Your task to perform on an android device: toggle notifications settings in the gmail app Image 0: 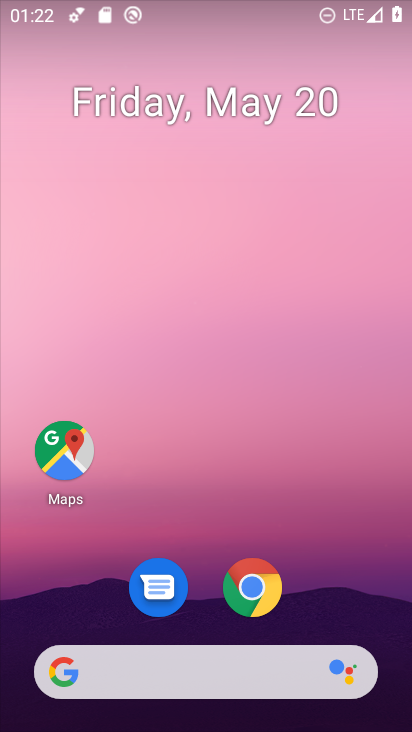
Step 0: drag from (370, 616) to (381, 241)
Your task to perform on an android device: toggle notifications settings in the gmail app Image 1: 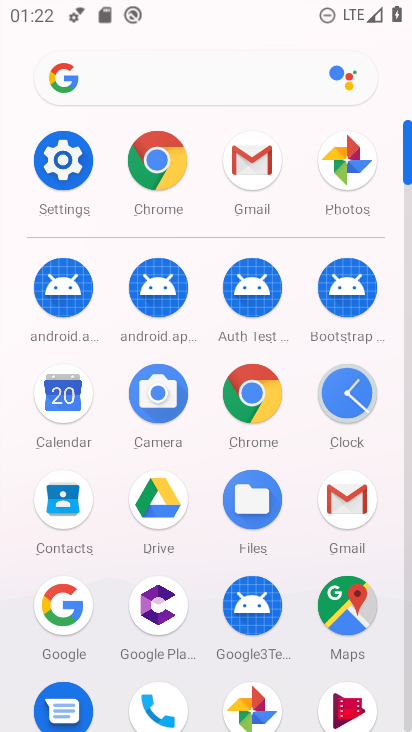
Step 1: click (346, 510)
Your task to perform on an android device: toggle notifications settings in the gmail app Image 2: 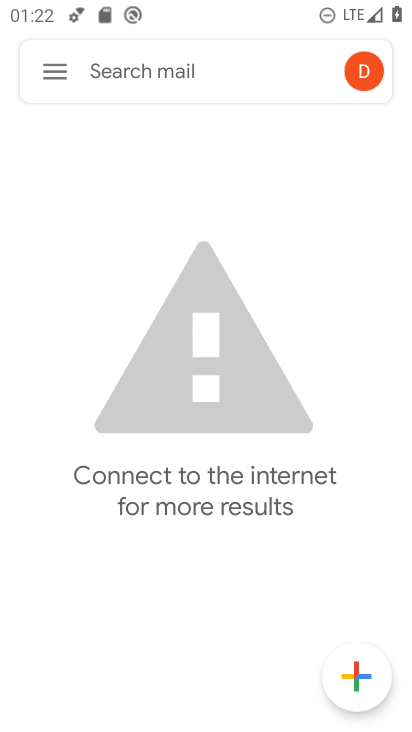
Step 2: click (67, 83)
Your task to perform on an android device: toggle notifications settings in the gmail app Image 3: 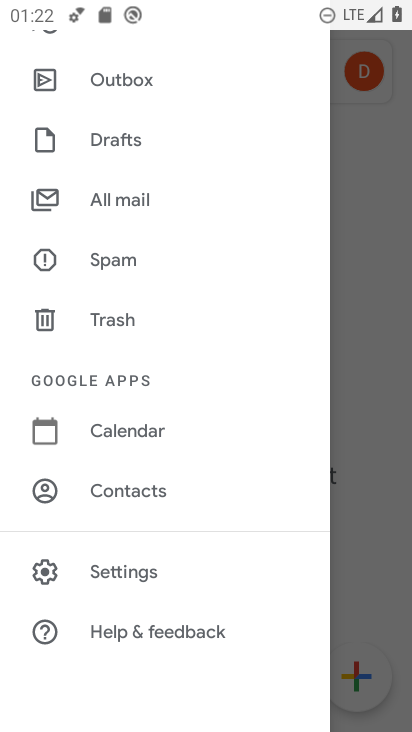
Step 3: drag from (241, 187) to (243, 252)
Your task to perform on an android device: toggle notifications settings in the gmail app Image 4: 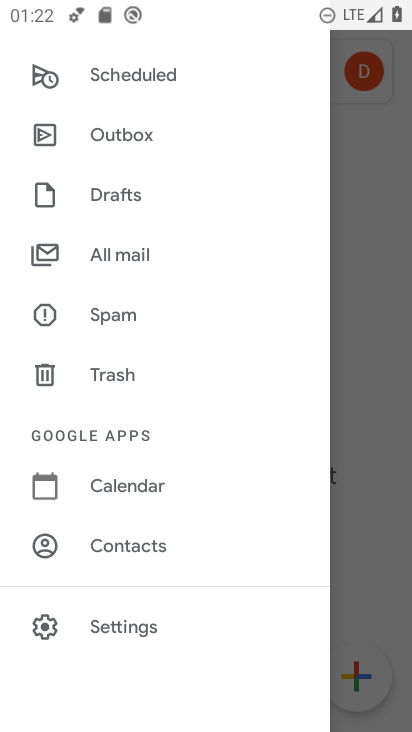
Step 4: drag from (237, 202) to (231, 264)
Your task to perform on an android device: toggle notifications settings in the gmail app Image 5: 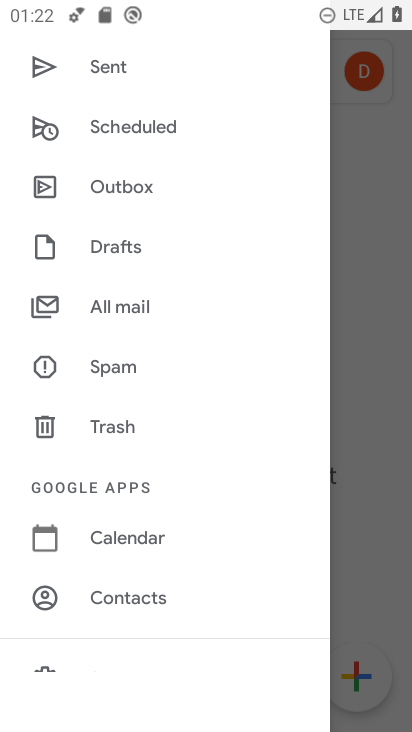
Step 5: drag from (244, 203) to (236, 270)
Your task to perform on an android device: toggle notifications settings in the gmail app Image 6: 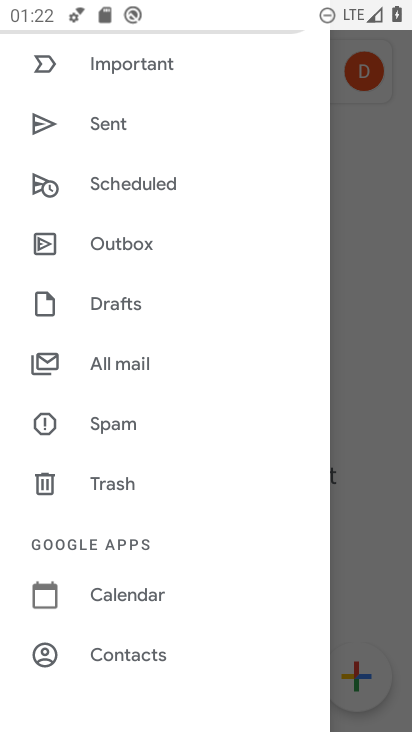
Step 6: drag from (245, 199) to (243, 265)
Your task to perform on an android device: toggle notifications settings in the gmail app Image 7: 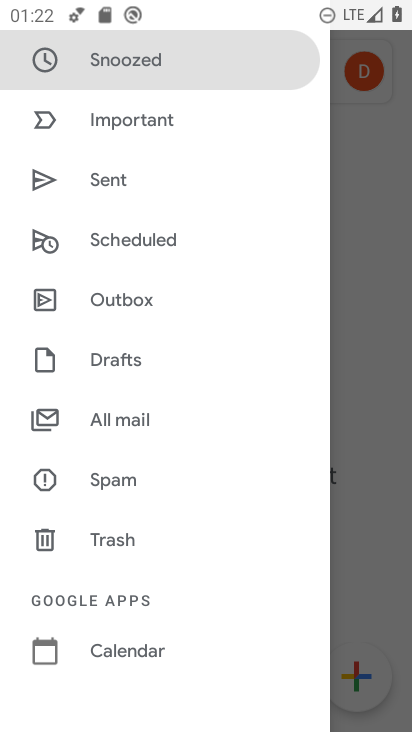
Step 7: drag from (252, 220) to (251, 286)
Your task to perform on an android device: toggle notifications settings in the gmail app Image 8: 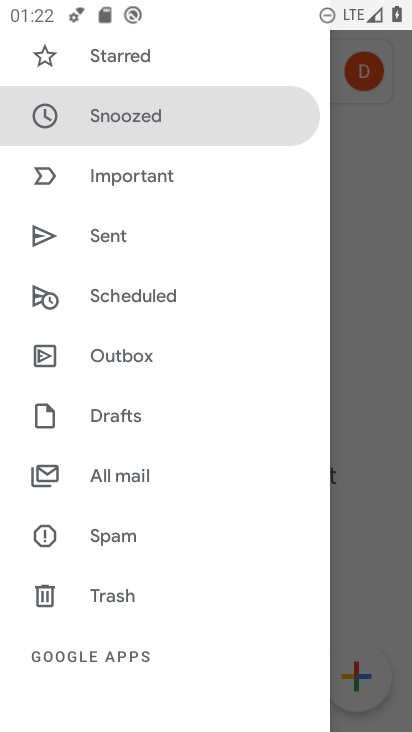
Step 8: drag from (260, 183) to (247, 270)
Your task to perform on an android device: toggle notifications settings in the gmail app Image 9: 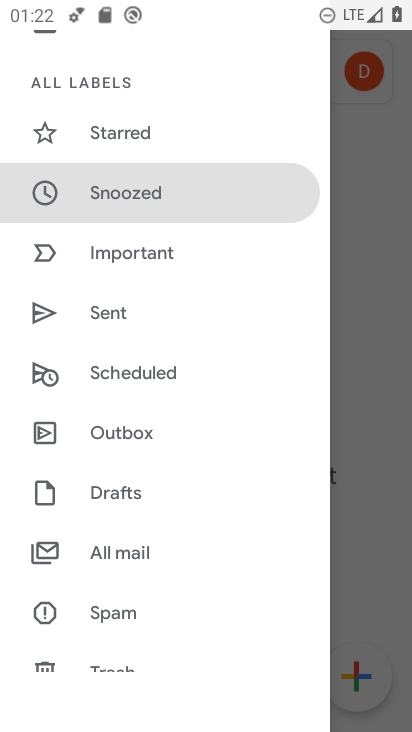
Step 9: drag from (253, 164) to (247, 298)
Your task to perform on an android device: toggle notifications settings in the gmail app Image 10: 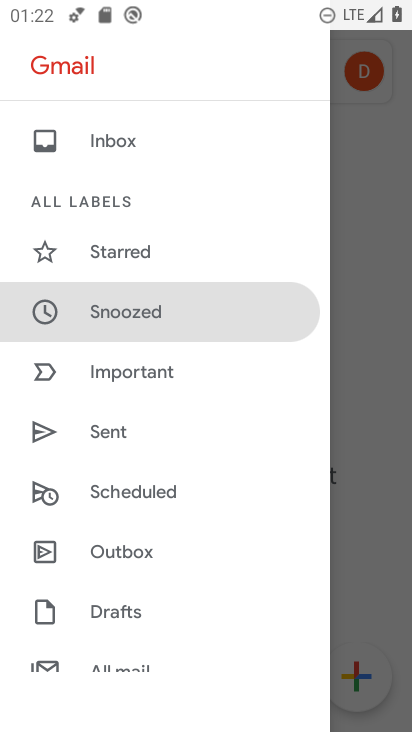
Step 10: drag from (248, 284) to (264, 175)
Your task to perform on an android device: toggle notifications settings in the gmail app Image 11: 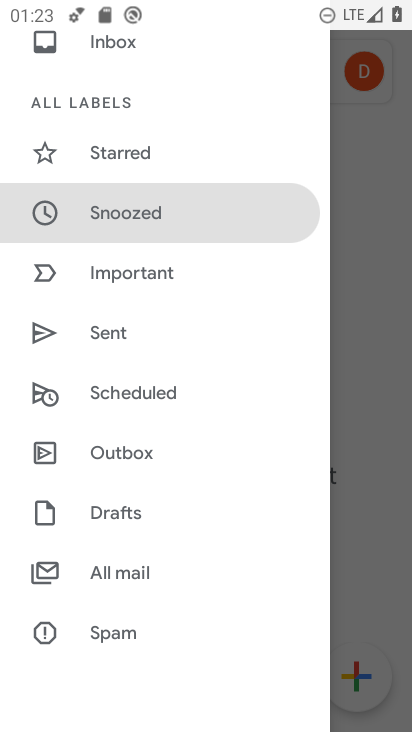
Step 11: drag from (234, 346) to (248, 292)
Your task to perform on an android device: toggle notifications settings in the gmail app Image 12: 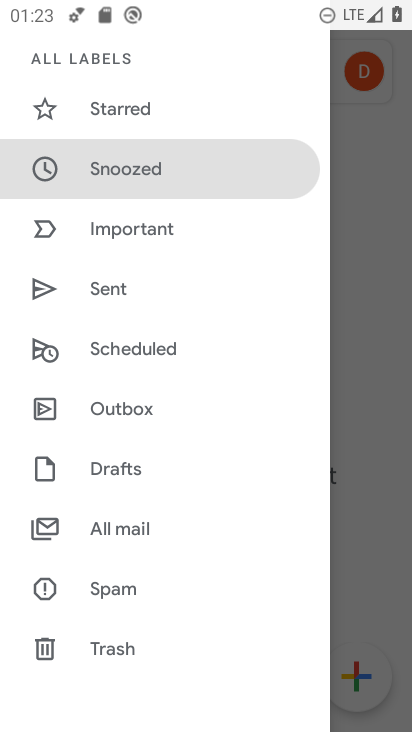
Step 12: drag from (235, 386) to (267, 283)
Your task to perform on an android device: toggle notifications settings in the gmail app Image 13: 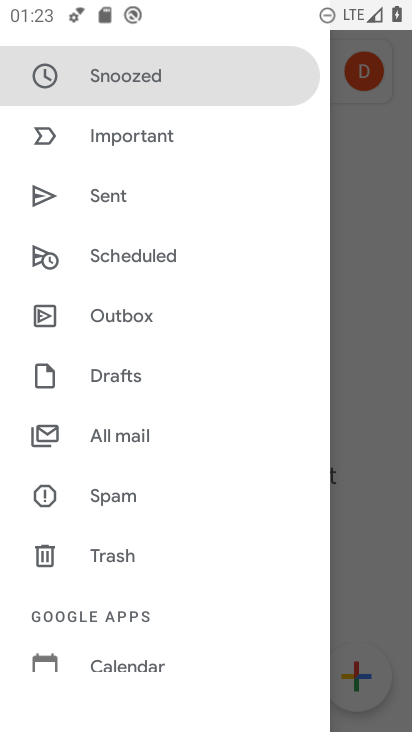
Step 13: drag from (260, 408) to (275, 329)
Your task to perform on an android device: toggle notifications settings in the gmail app Image 14: 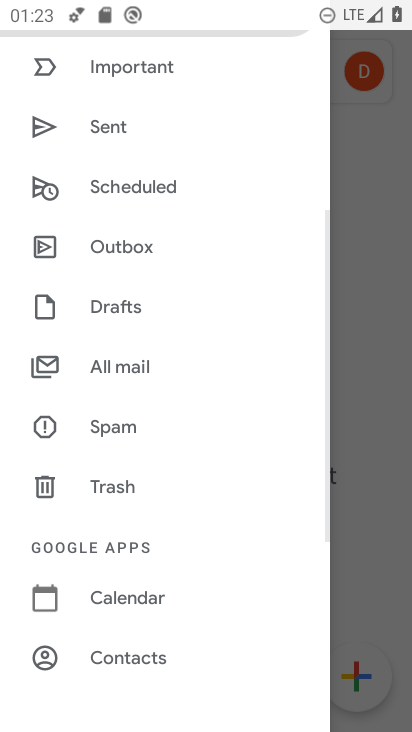
Step 14: drag from (256, 416) to (270, 348)
Your task to perform on an android device: toggle notifications settings in the gmail app Image 15: 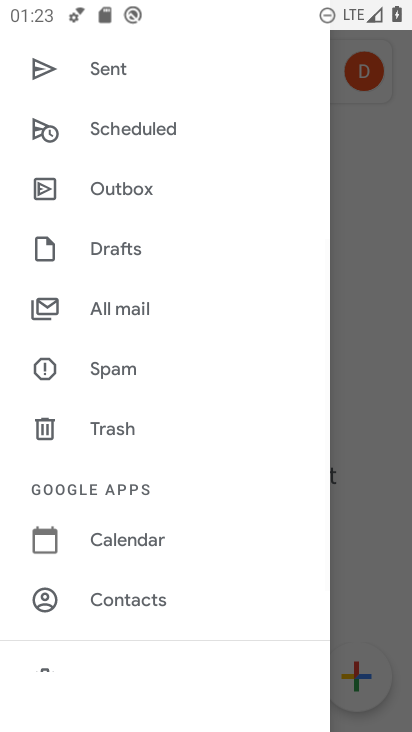
Step 15: drag from (257, 430) to (269, 358)
Your task to perform on an android device: toggle notifications settings in the gmail app Image 16: 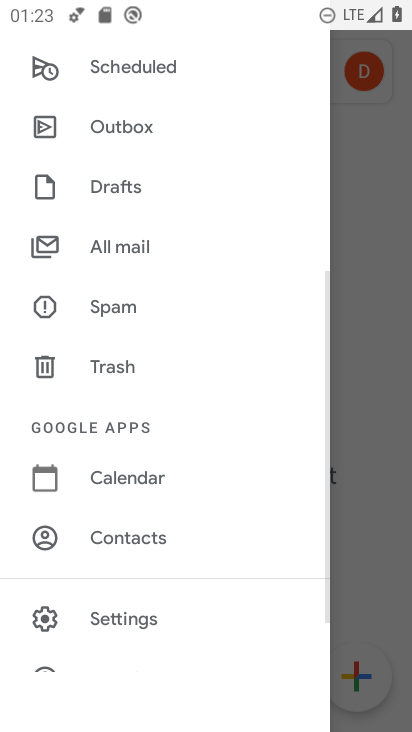
Step 16: drag from (257, 415) to (266, 365)
Your task to perform on an android device: toggle notifications settings in the gmail app Image 17: 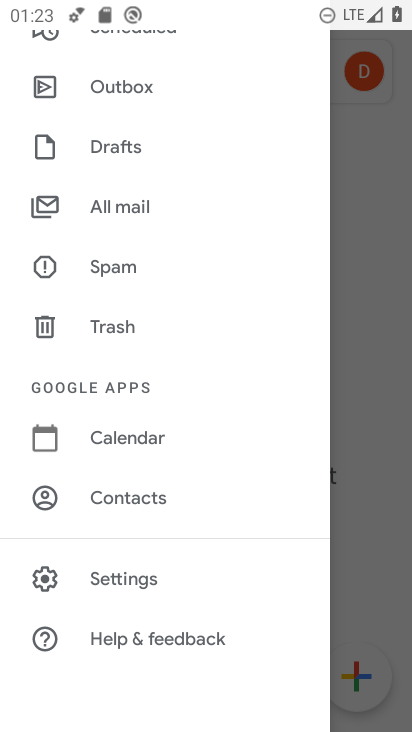
Step 17: drag from (258, 410) to (267, 368)
Your task to perform on an android device: toggle notifications settings in the gmail app Image 18: 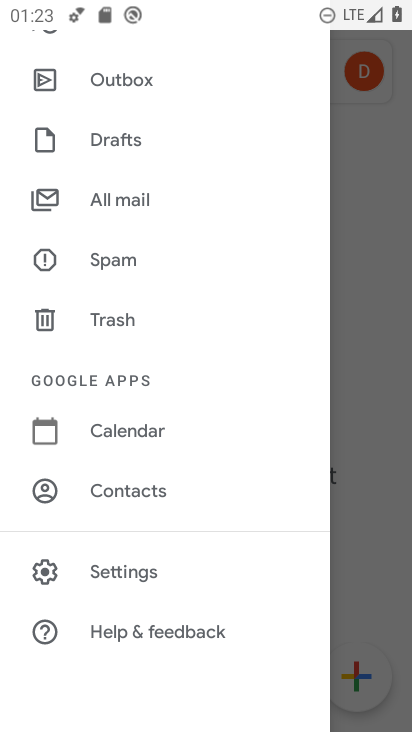
Step 18: drag from (251, 431) to (263, 388)
Your task to perform on an android device: toggle notifications settings in the gmail app Image 19: 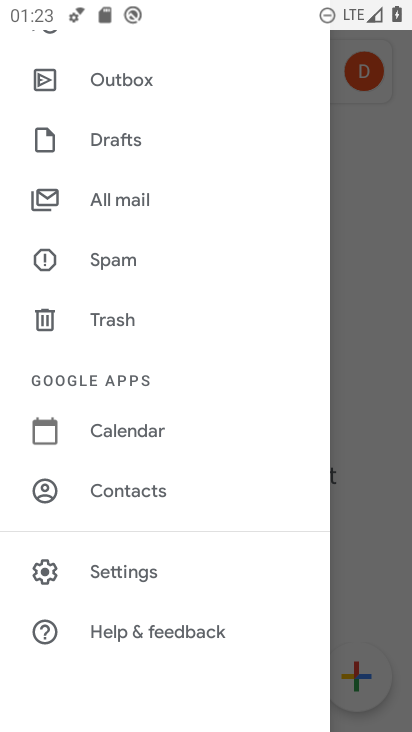
Step 19: drag from (251, 418) to (258, 374)
Your task to perform on an android device: toggle notifications settings in the gmail app Image 20: 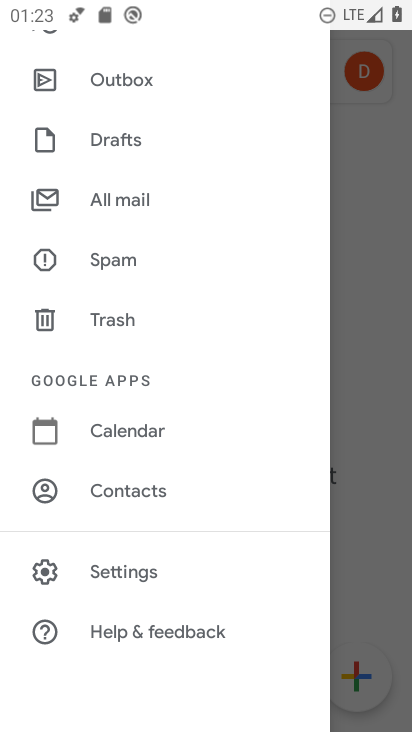
Step 20: click (142, 575)
Your task to perform on an android device: toggle notifications settings in the gmail app Image 21: 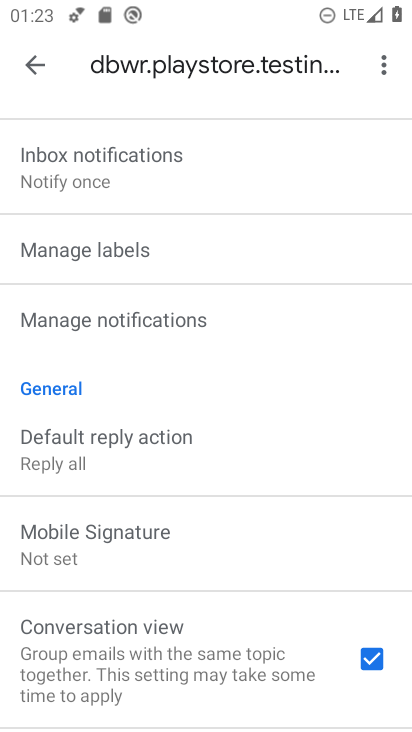
Step 21: click (237, 332)
Your task to perform on an android device: toggle notifications settings in the gmail app Image 22: 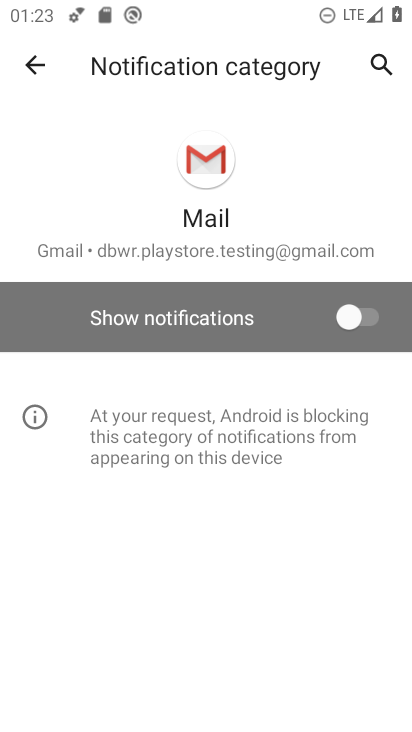
Step 22: click (354, 318)
Your task to perform on an android device: toggle notifications settings in the gmail app Image 23: 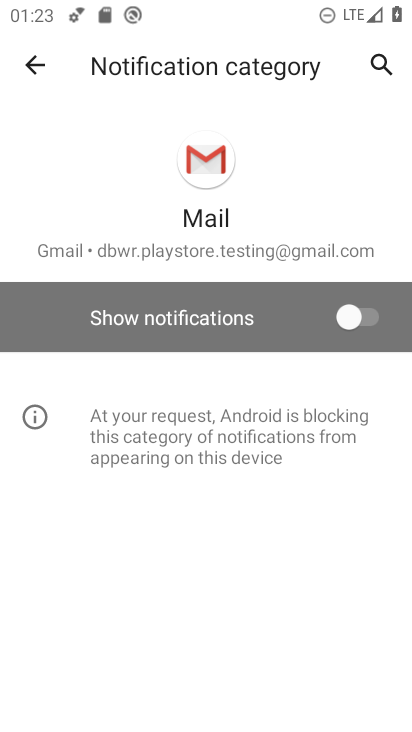
Step 23: click (334, 317)
Your task to perform on an android device: toggle notifications settings in the gmail app Image 24: 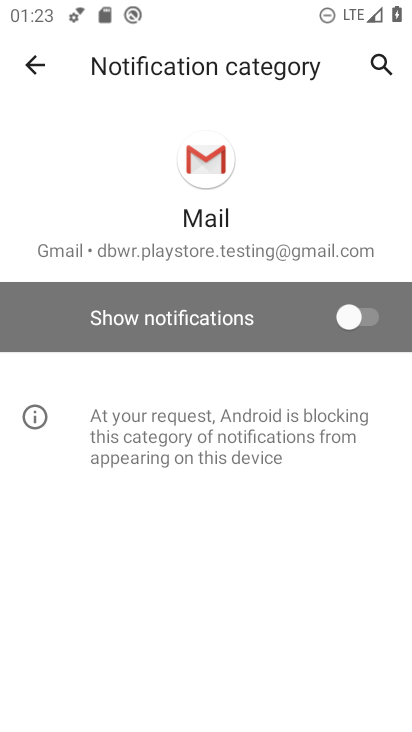
Step 24: click (352, 333)
Your task to perform on an android device: toggle notifications settings in the gmail app Image 25: 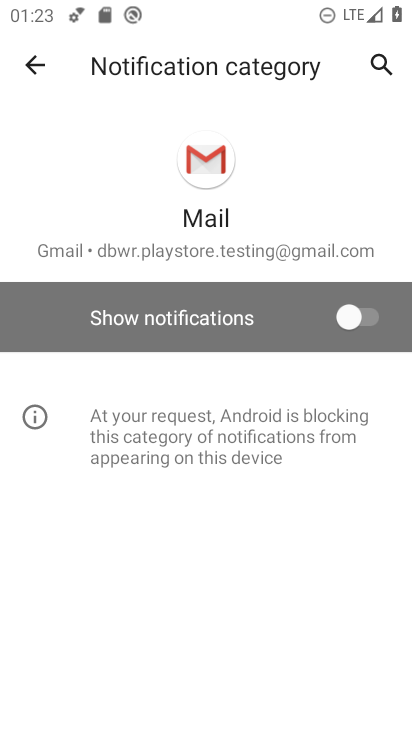
Step 25: task complete